Your task to perform on an android device: allow notifications from all sites in the chrome app Image 0: 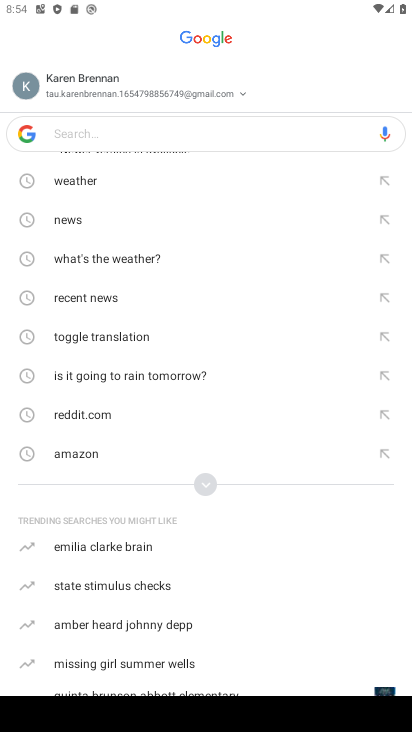
Step 0: press home button
Your task to perform on an android device: allow notifications from all sites in the chrome app Image 1: 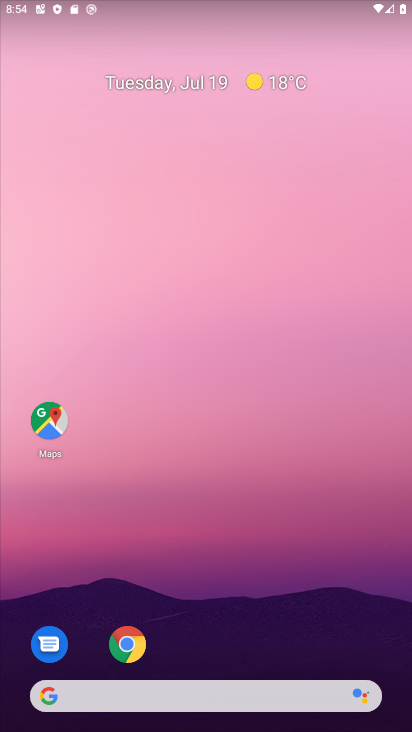
Step 1: drag from (190, 720) to (195, 275)
Your task to perform on an android device: allow notifications from all sites in the chrome app Image 2: 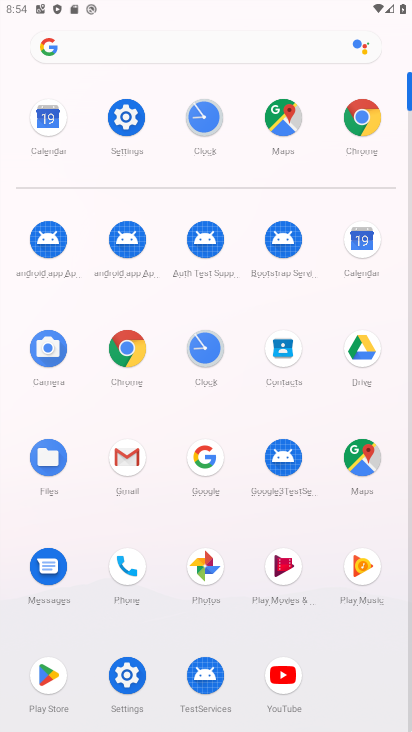
Step 2: click (115, 346)
Your task to perform on an android device: allow notifications from all sites in the chrome app Image 3: 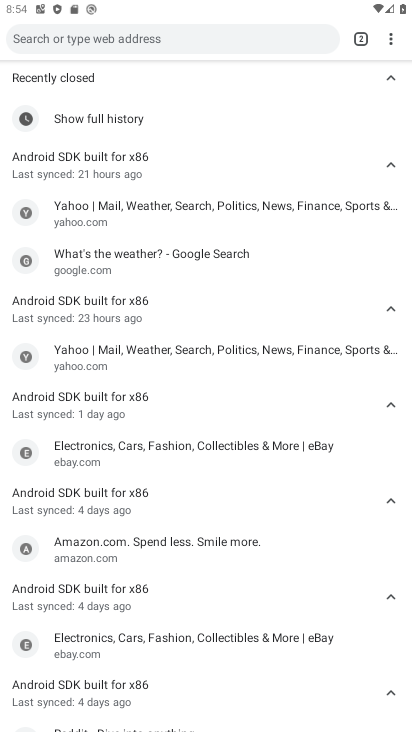
Step 3: click (391, 41)
Your task to perform on an android device: allow notifications from all sites in the chrome app Image 4: 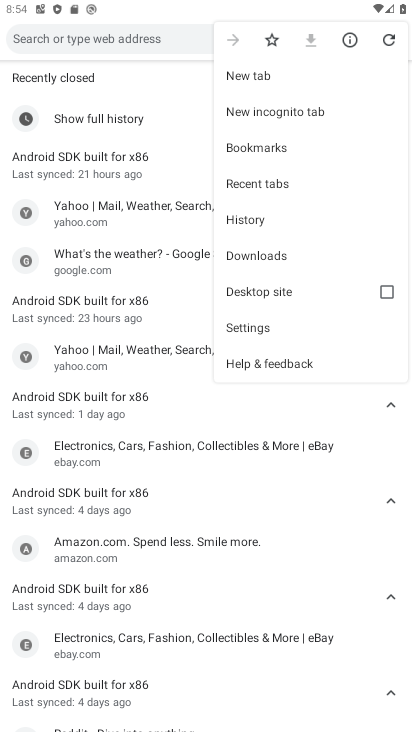
Step 4: click (252, 325)
Your task to perform on an android device: allow notifications from all sites in the chrome app Image 5: 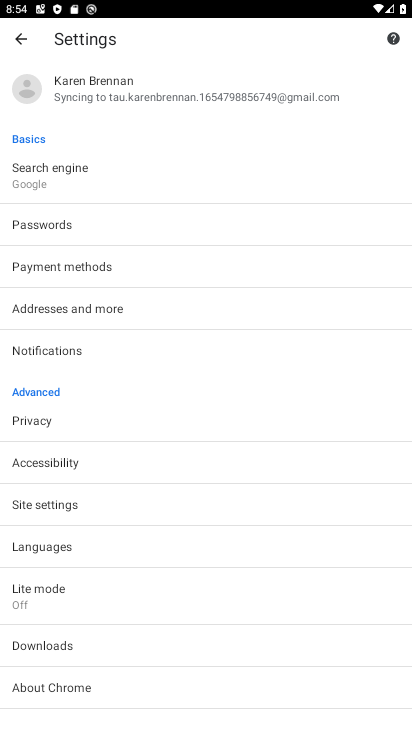
Step 5: click (56, 506)
Your task to perform on an android device: allow notifications from all sites in the chrome app Image 6: 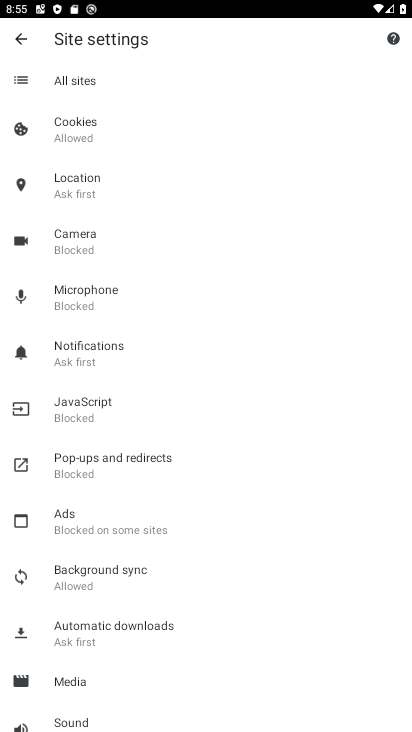
Step 6: click (72, 352)
Your task to perform on an android device: allow notifications from all sites in the chrome app Image 7: 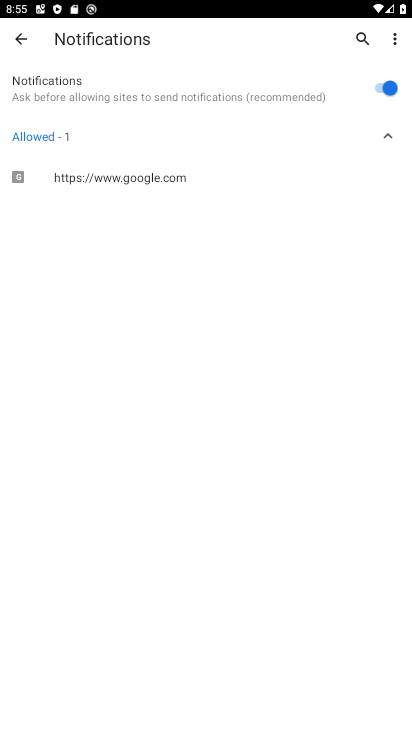
Step 7: task complete